Your task to perform on an android device: Check the news Image 0: 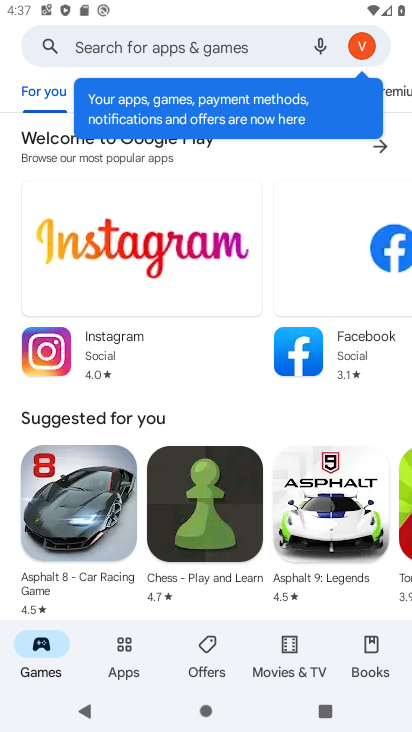
Step 0: press home button
Your task to perform on an android device: Check the news Image 1: 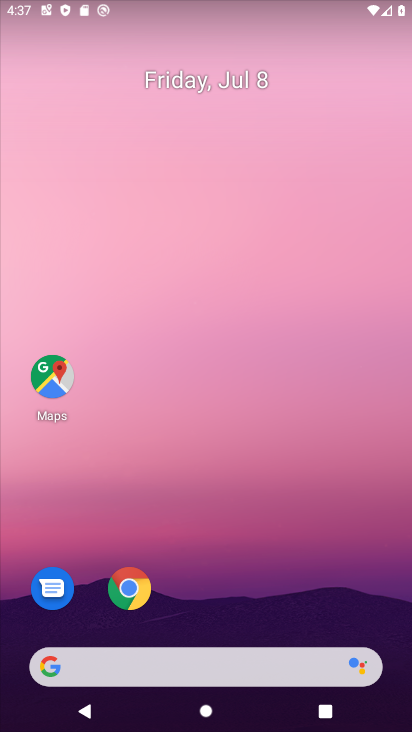
Step 1: drag from (236, 583) to (247, 1)
Your task to perform on an android device: Check the news Image 2: 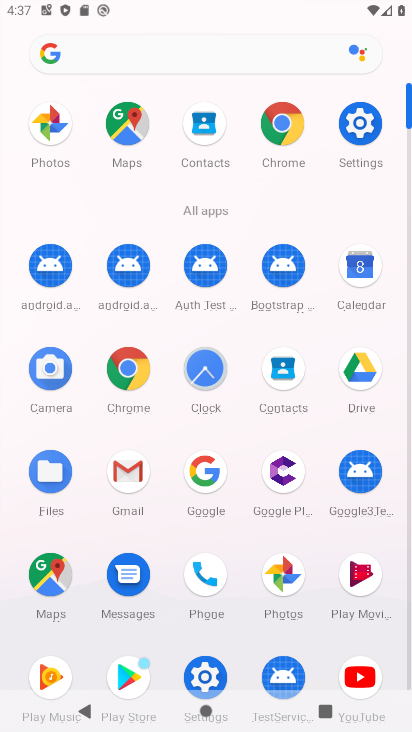
Step 2: click (176, 62)
Your task to perform on an android device: Check the news Image 3: 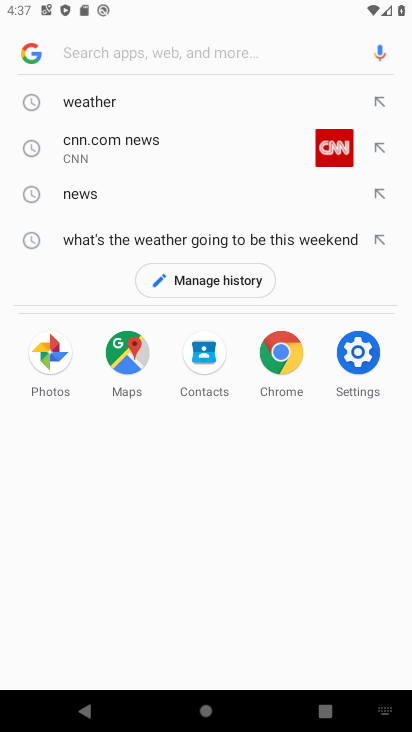
Step 3: type "news"
Your task to perform on an android device: Check the news Image 4: 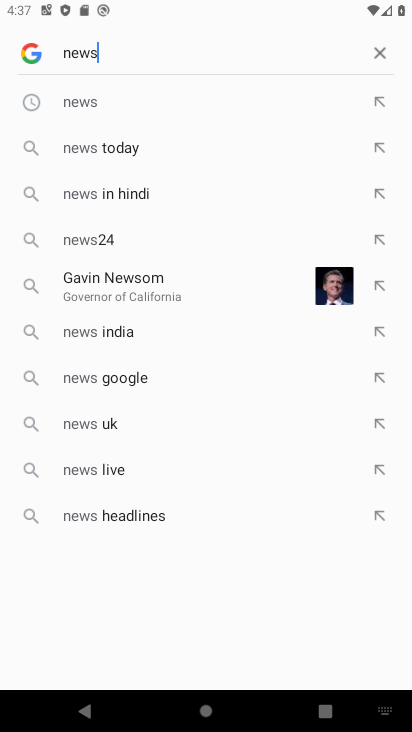
Step 4: click (102, 101)
Your task to perform on an android device: Check the news Image 5: 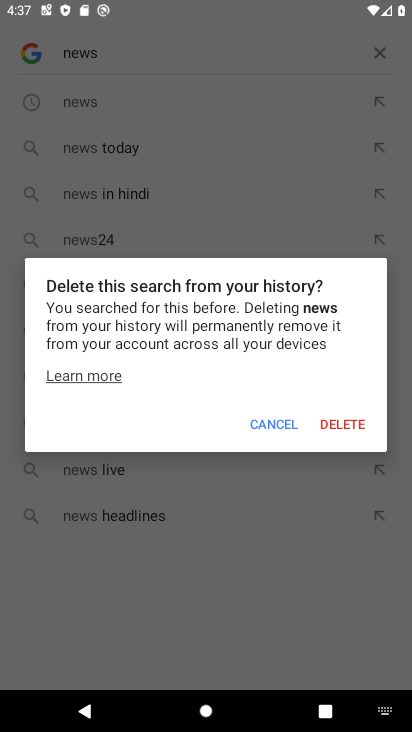
Step 5: click (269, 421)
Your task to perform on an android device: Check the news Image 6: 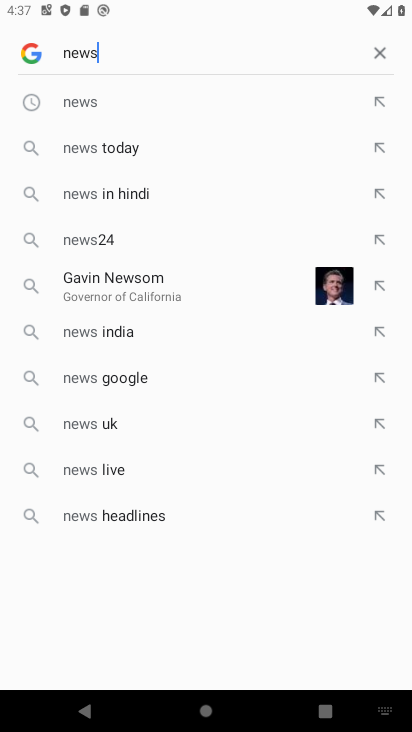
Step 6: click (50, 100)
Your task to perform on an android device: Check the news Image 7: 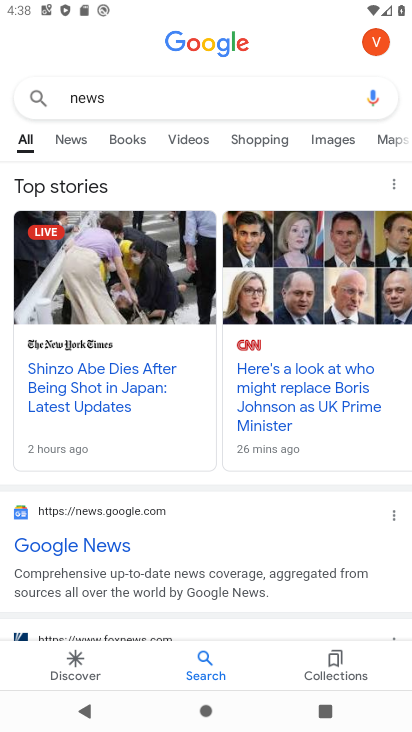
Step 7: task complete